Your task to perform on an android device: turn on the 24-hour format for clock Image 0: 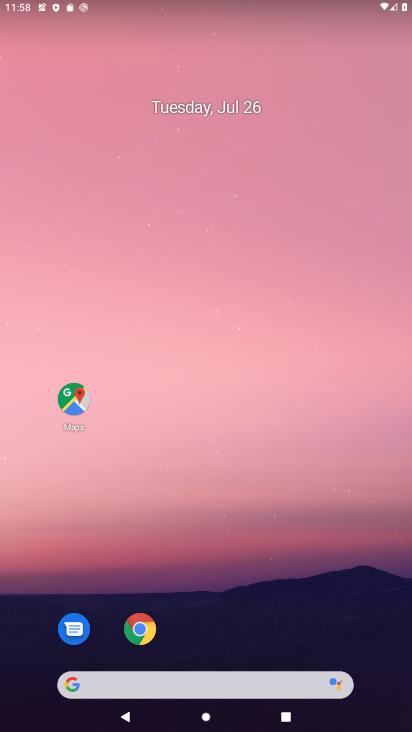
Step 0: drag from (228, 708) to (258, 228)
Your task to perform on an android device: turn on the 24-hour format for clock Image 1: 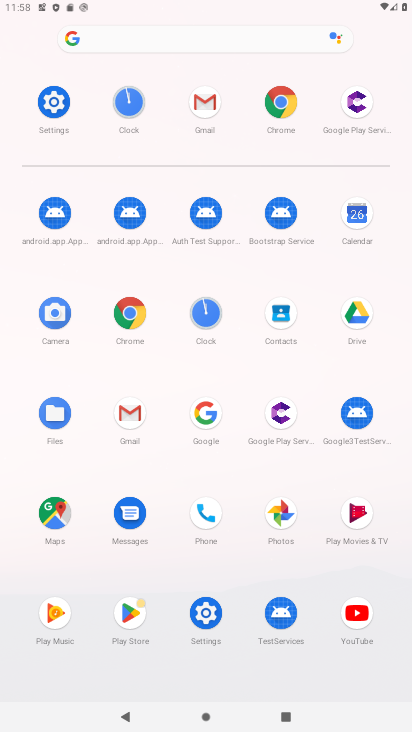
Step 1: click (213, 309)
Your task to perform on an android device: turn on the 24-hour format for clock Image 2: 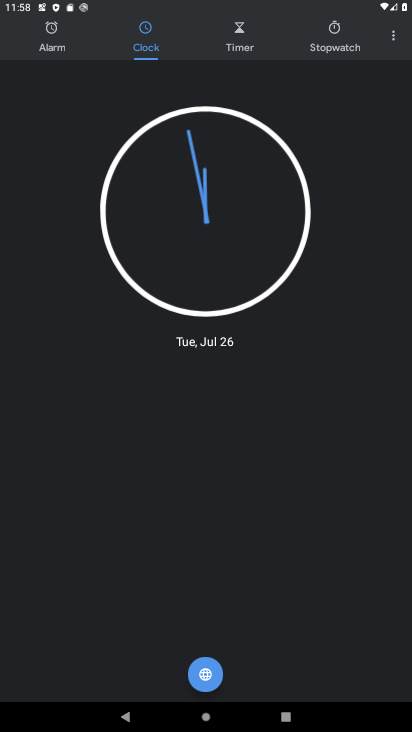
Step 2: click (394, 42)
Your task to perform on an android device: turn on the 24-hour format for clock Image 3: 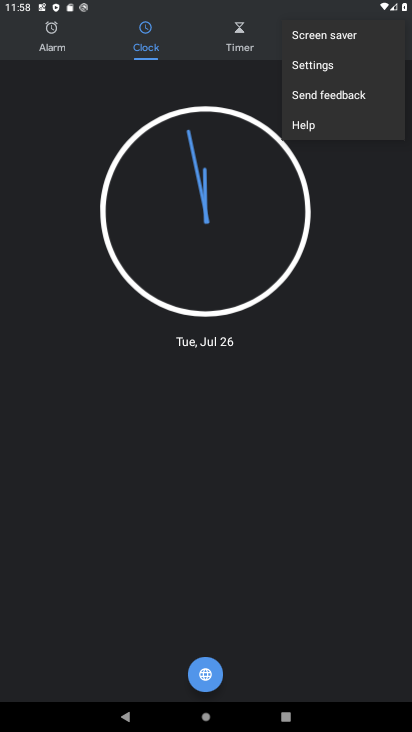
Step 3: click (306, 62)
Your task to perform on an android device: turn on the 24-hour format for clock Image 4: 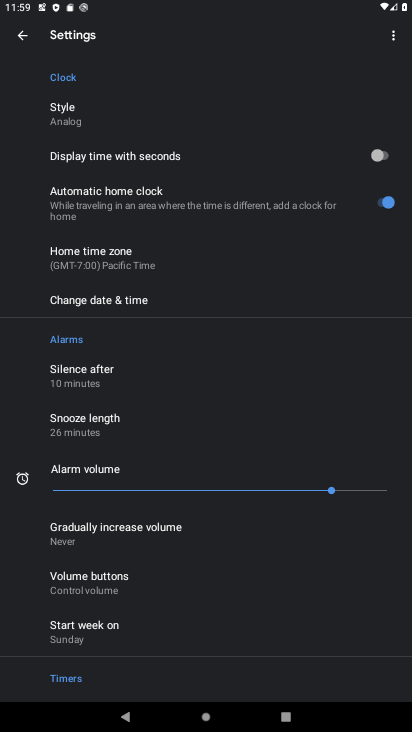
Step 4: click (105, 300)
Your task to perform on an android device: turn on the 24-hour format for clock Image 5: 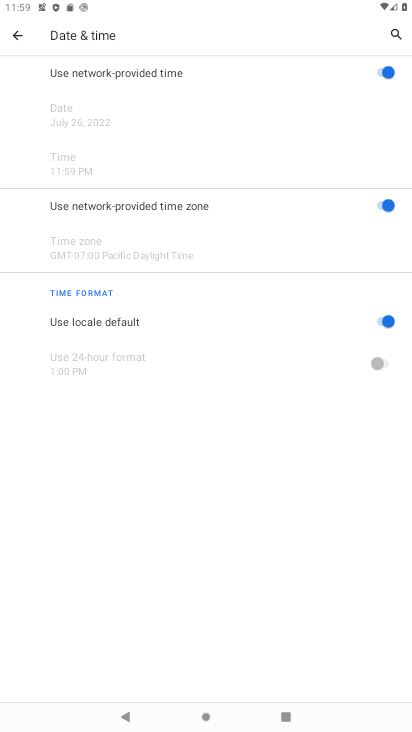
Step 5: click (381, 324)
Your task to perform on an android device: turn on the 24-hour format for clock Image 6: 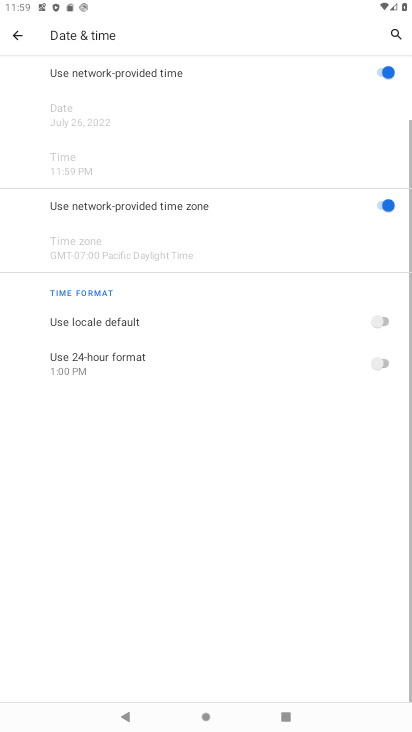
Step 6: click (384, 361)
Your task to perform on an android device: turn on the 24-hour format for clock Image 7: 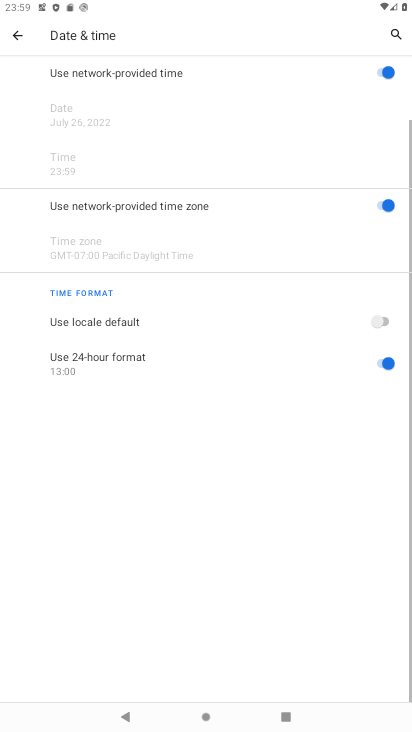
Step 7: task complete